Your task to perform on an android device: visit the assistant section in the google photos Image 0: 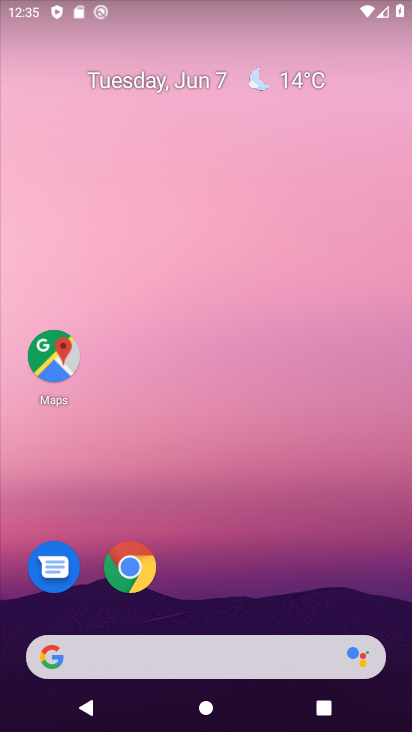
Step 0: drag from (266, 584) to (295, 3)
Your task to perform on an android device: visit the assistant section in the google photos Image 1: 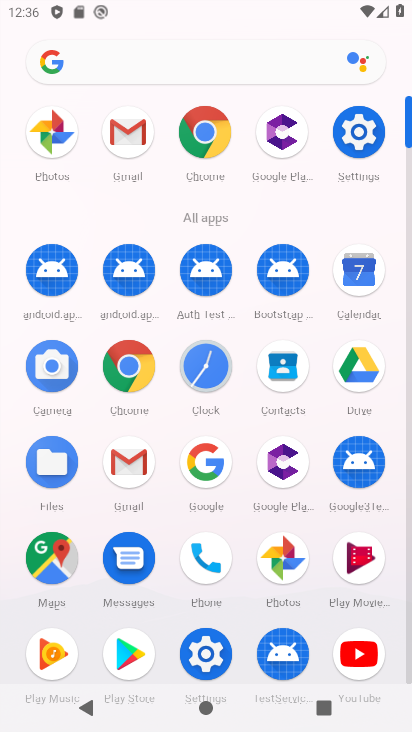
Step 1: click (275, 560)
Your task to perform on an android device: visit the assistant section in the google photos Image 2: 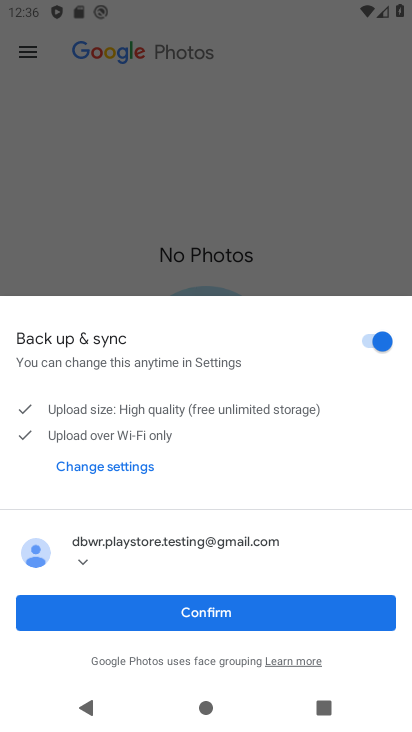
Step 2: click (114, 600)
Your task to perform on an android device: visit the assistant section in the google photos Image 3: 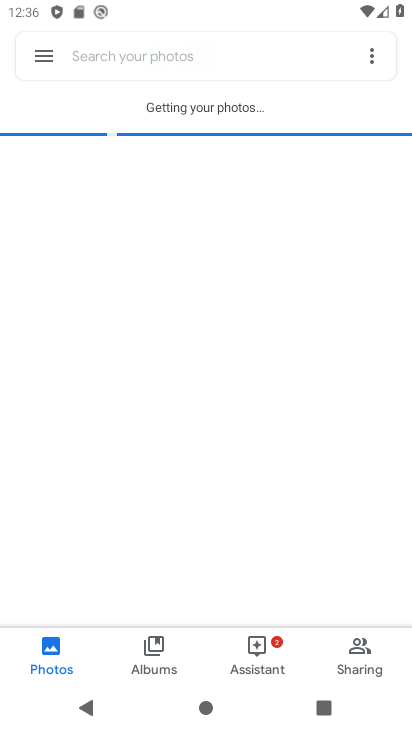
Step 3: click (244, 650)
Your task to perform on an android device: visit the assistant section in the google photos Image 4: 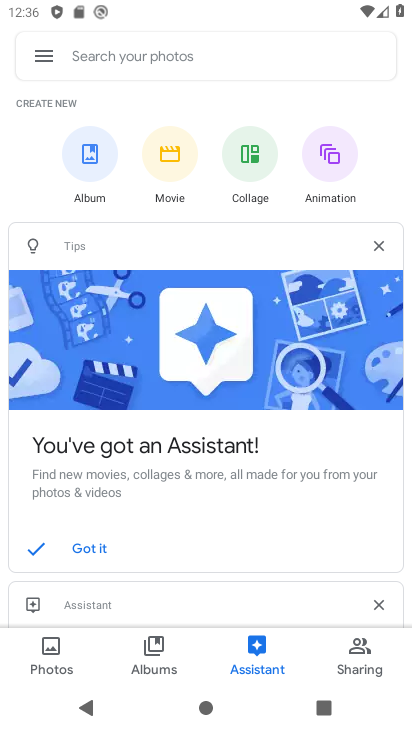
Step 4: task complete